Your task to perform on an android device: add a contact in the contacts app Image 0: 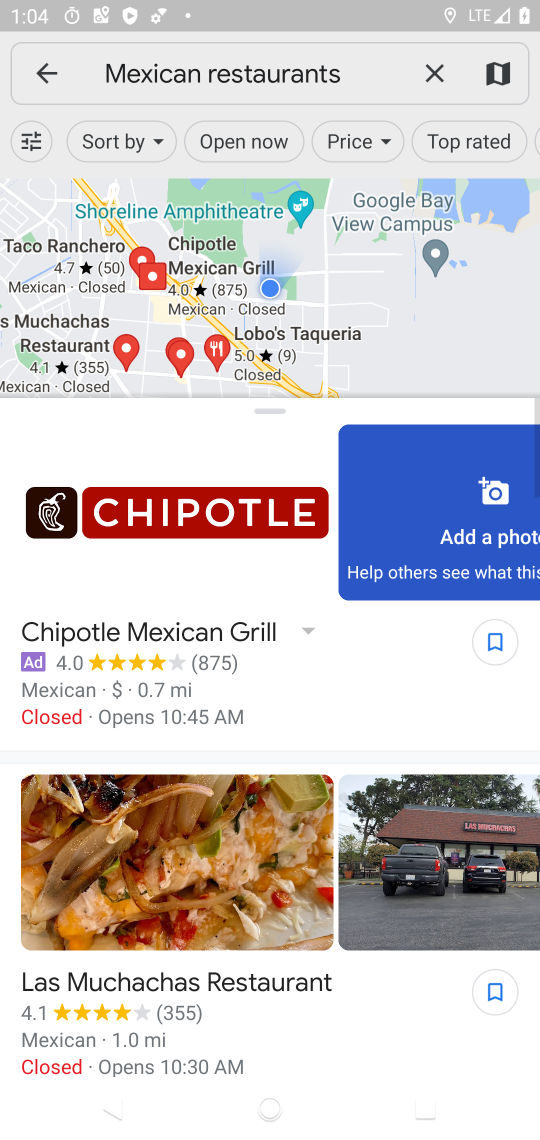
Step 0: press home button
Your task to perform on an android device: add a contact in the contacts app Image 1: 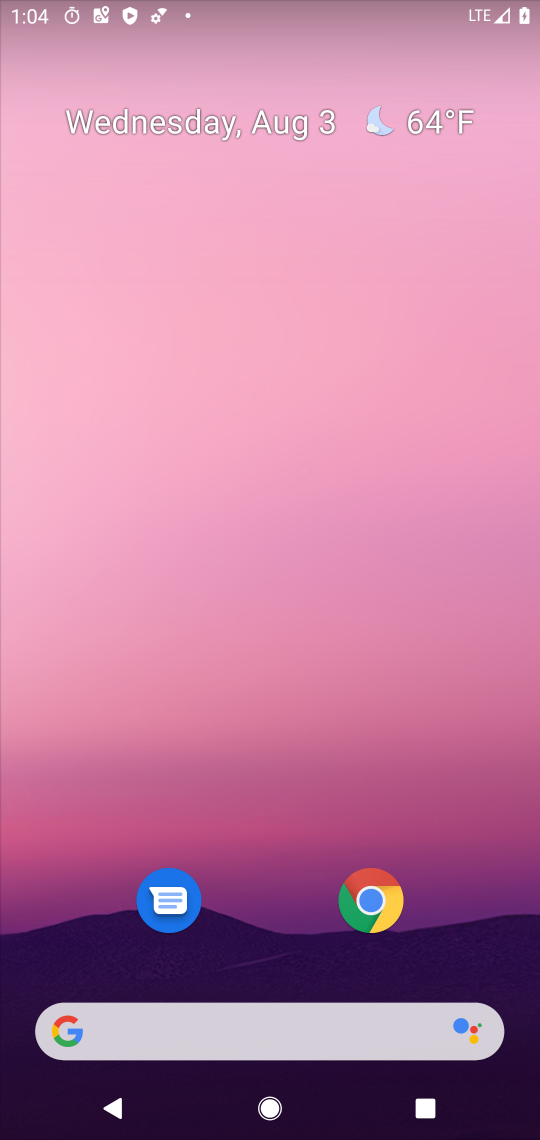
Step 1: drag from (247, 908) to (299, 104)
Your task to perform on an android device: add a contact in the contacts app Image 2: 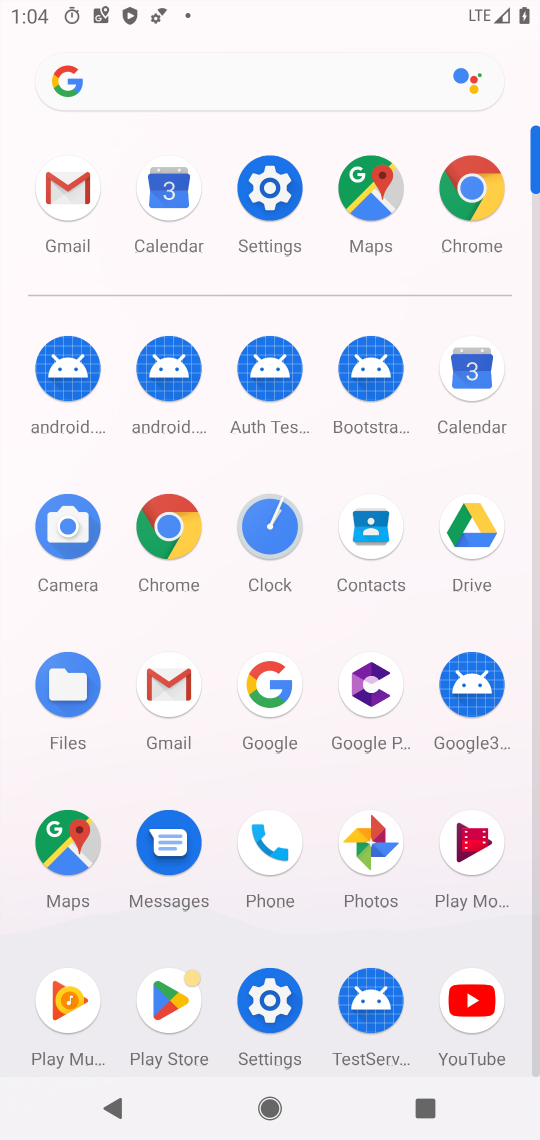
Step 2: click (364, 522)
Your task to perform on an android device: add a contact in the contacts app Image 3: 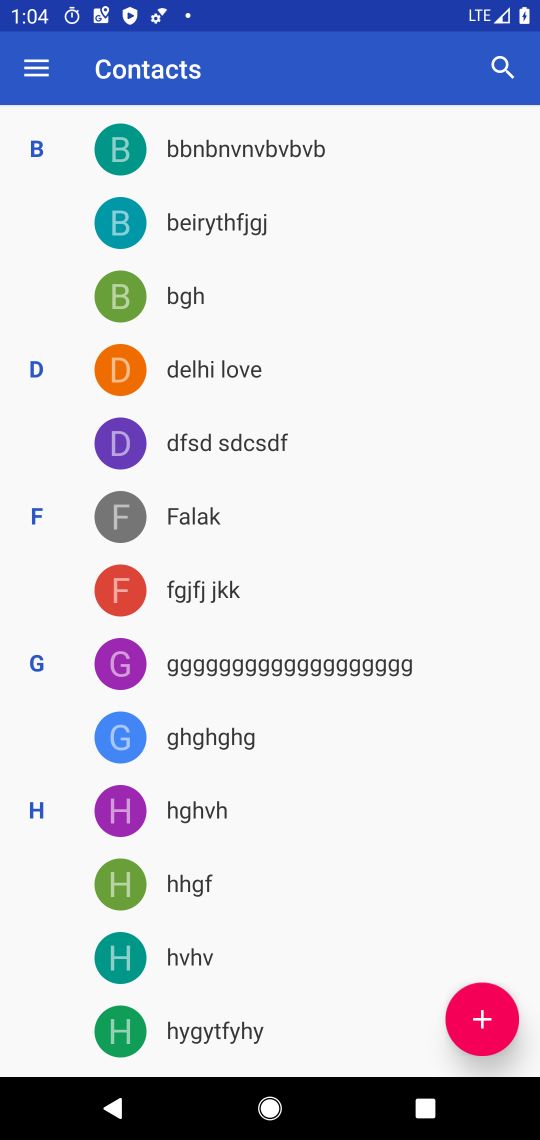
Step 3: click (491, 1023)
Your task to perform on an android device: add a contact in the contacts app Image 4: 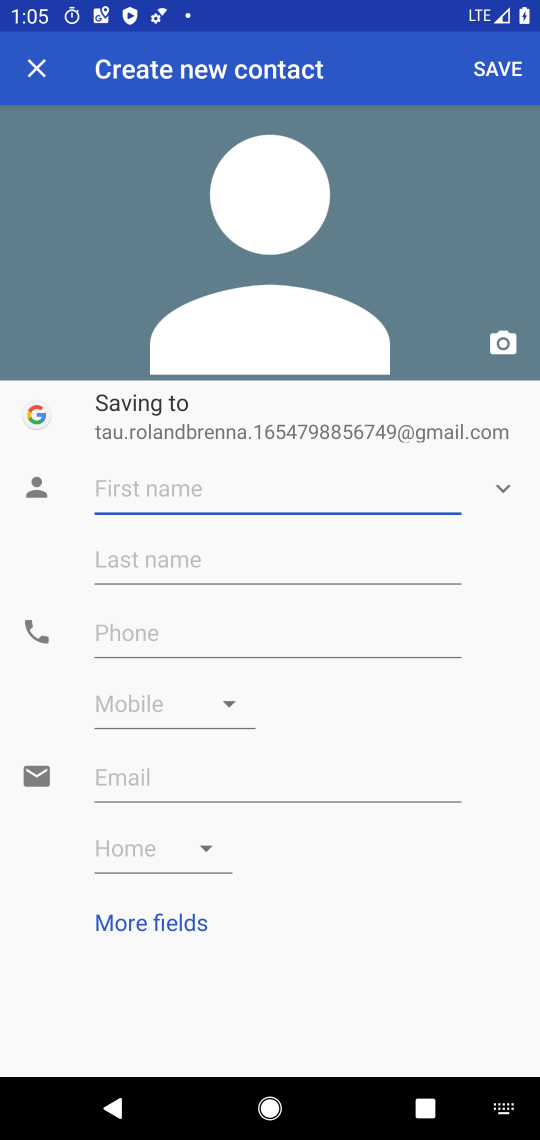
Step 4: type "garmi"
Your task to perform on an android device: add a contact in the contacts app Image 5: 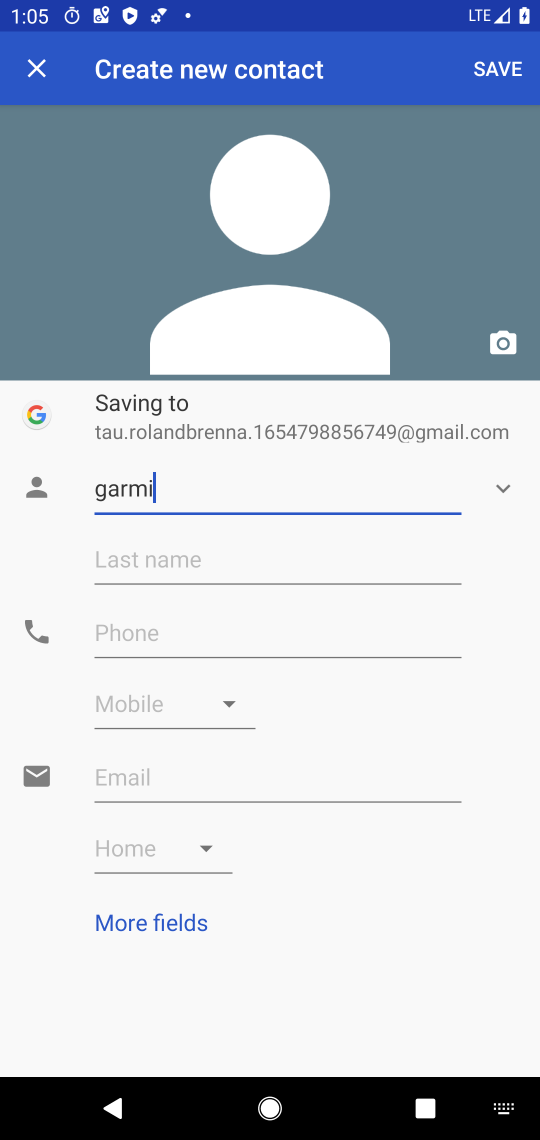
Step 5: click (397, 492)
Your task to perform on an android device: add a contact in the contacts app Image 6: 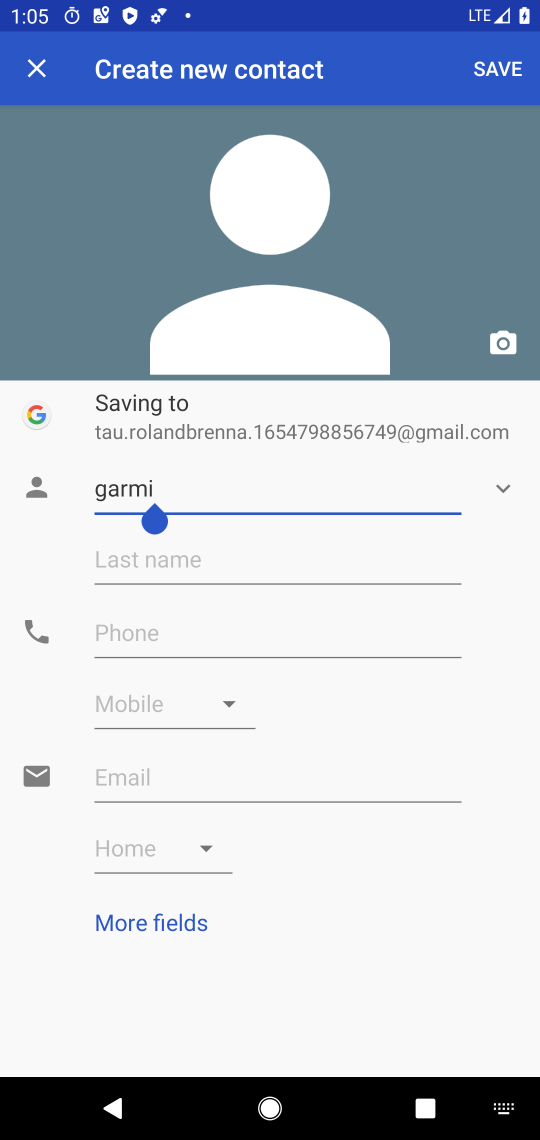
Step 6: click (493, 64)
Your task to perform on an android device: add a contact in the contacts app Image 7: 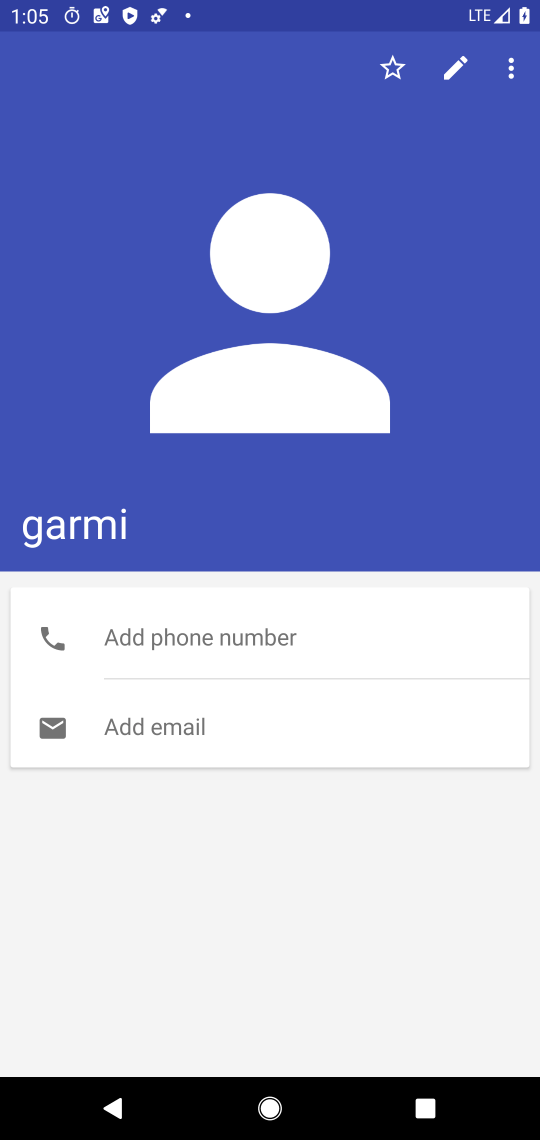
Step 7: task complete